Your task to perform on an android device: Show me productivity apps on the Play Store Image 0: 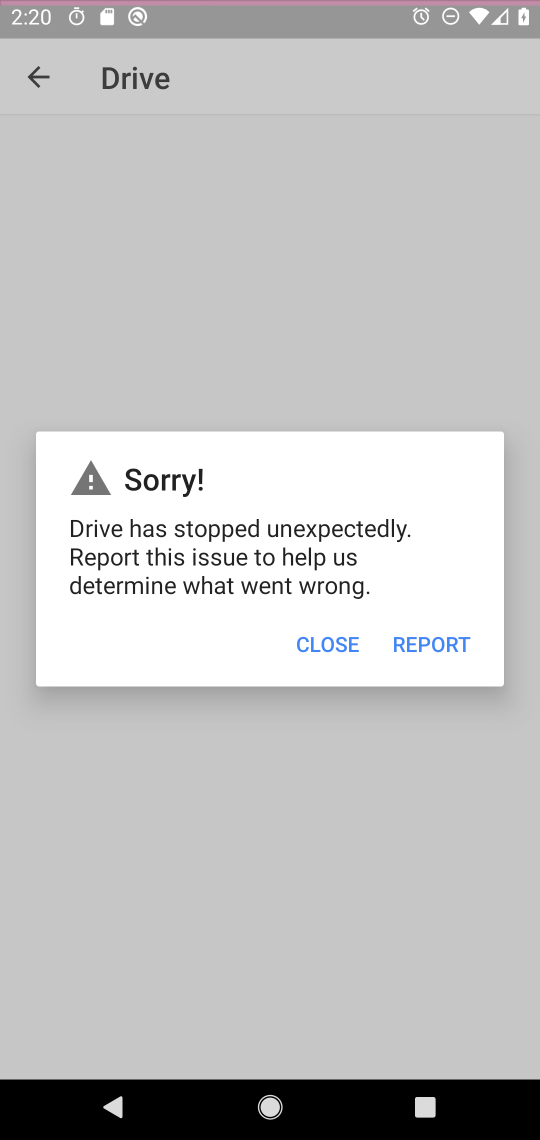
Step 0: press home button
Your task to perform on an android device: Show me productivity apps on the Play Store Image 1: 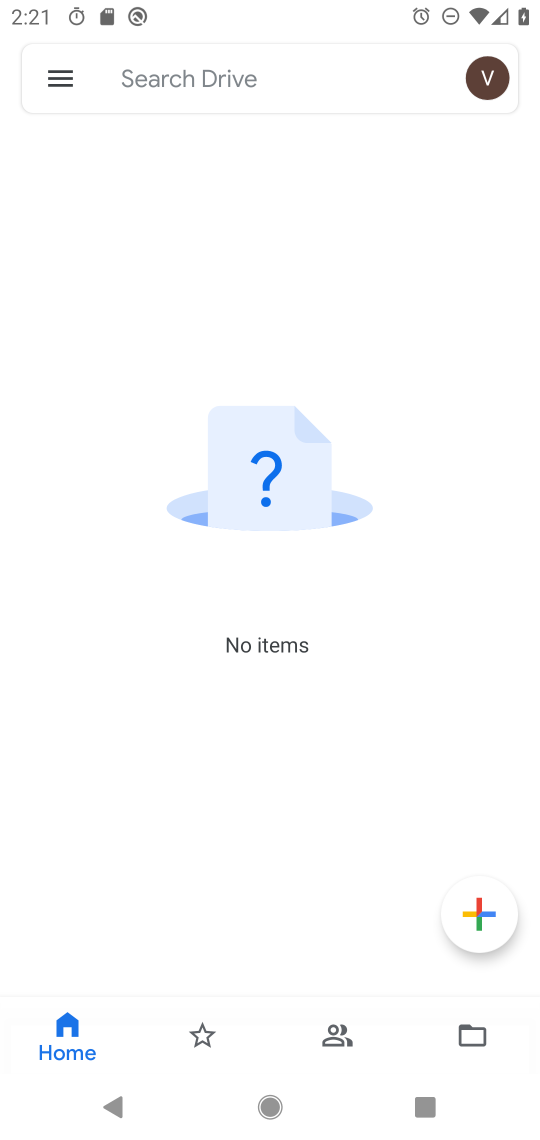
Step 1: press home button
Your task to perform on an android device: Show me productivity apps on the Play Store Image 2: 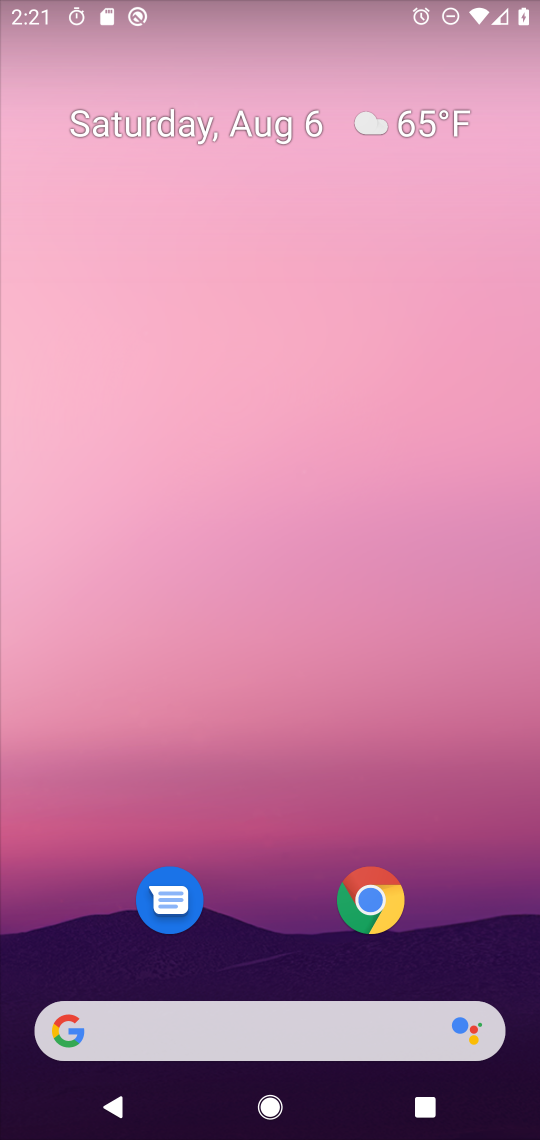
Step 2: press home button
Your task to perform on an android device: Show me productivity apps on the Play Store Image 3: 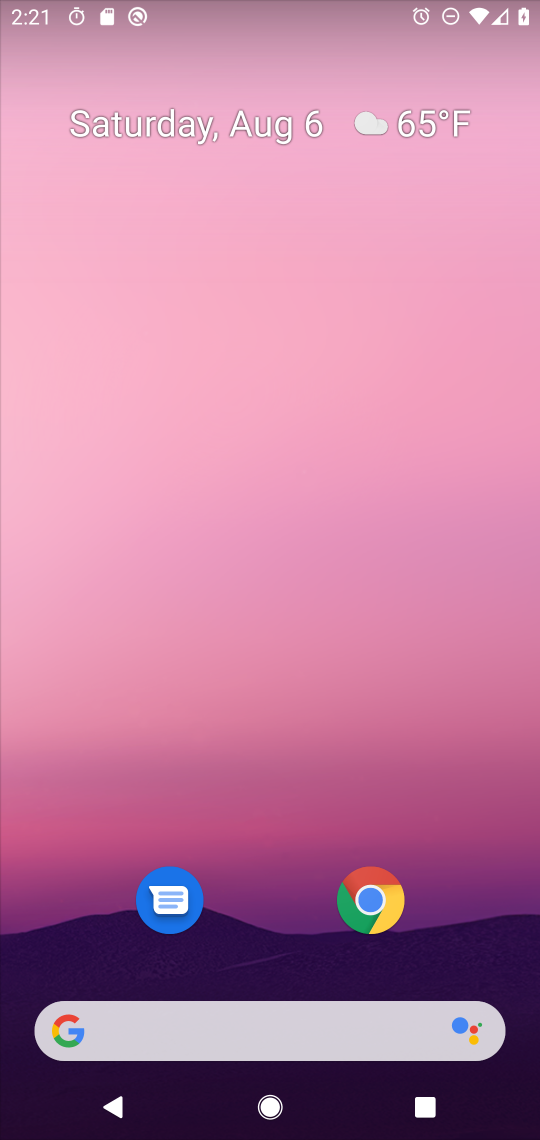
Step 3: drag from (303, 889) to (294, 300)
Your task to perform on an android device: Show me productivity apps on the Play Store Image 4: 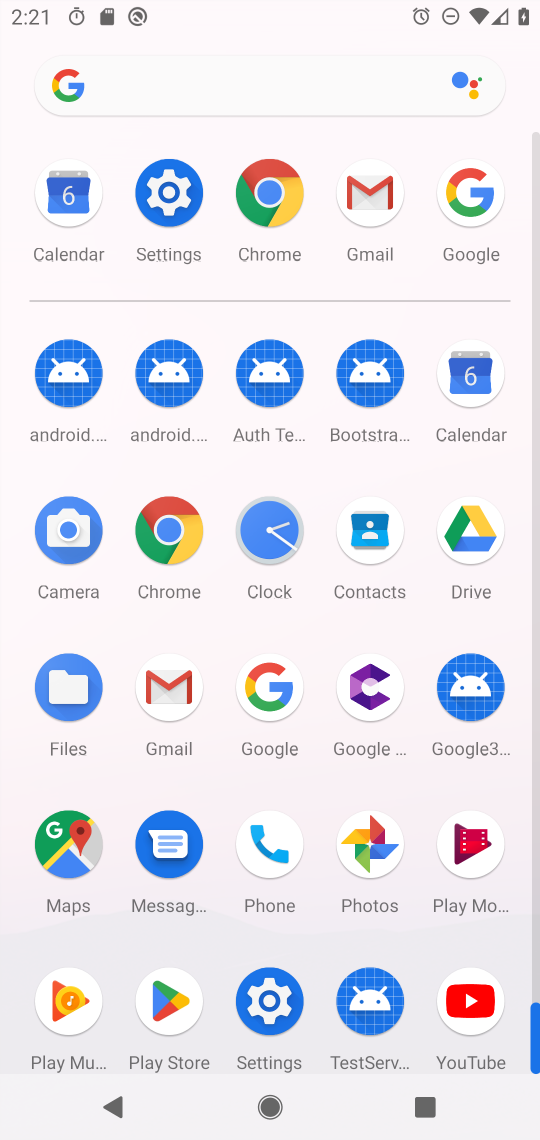
Step 4: click (173, 1004)
Your task to perform on an android device: Show me productivity apps on the Play Store Image 5: 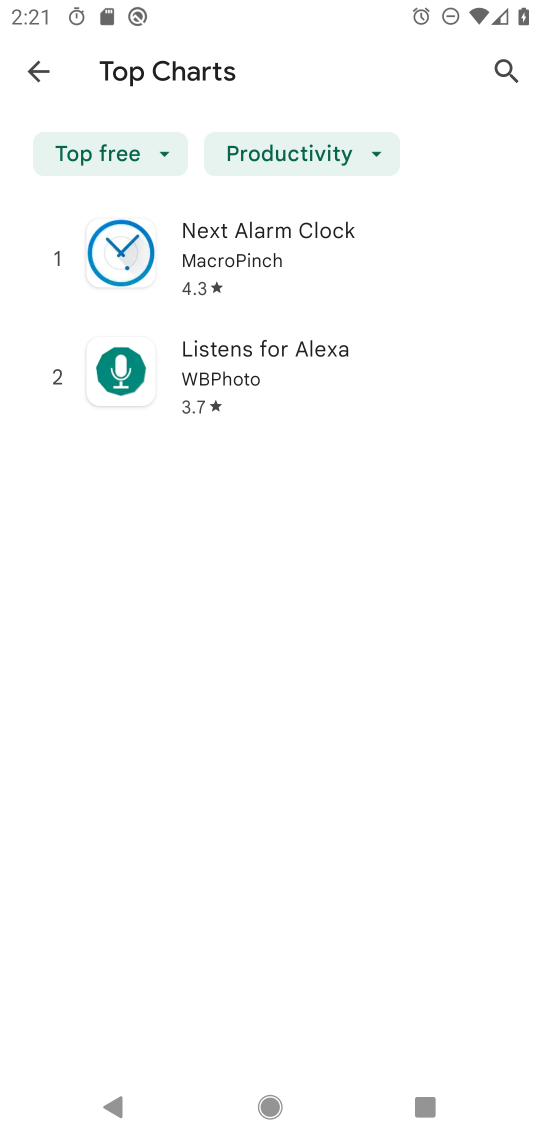
Step 5: task complete